Your task to perform on an android device: Turn on the flashlight Image 0: 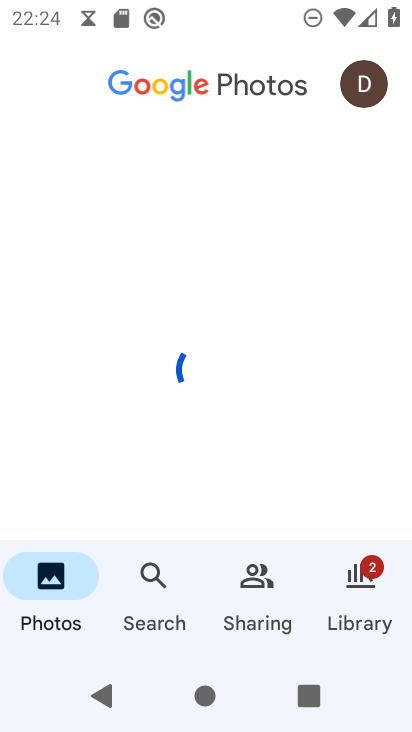
Step 0: press home button
Your task to perform on an android device: Turn on the flashlight Image 1: 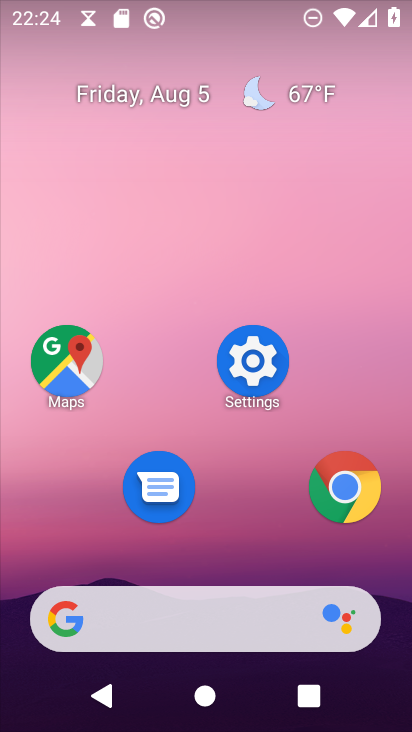
Step 1: task complete